Your task to perform on an android device: Open display settings Image 0: 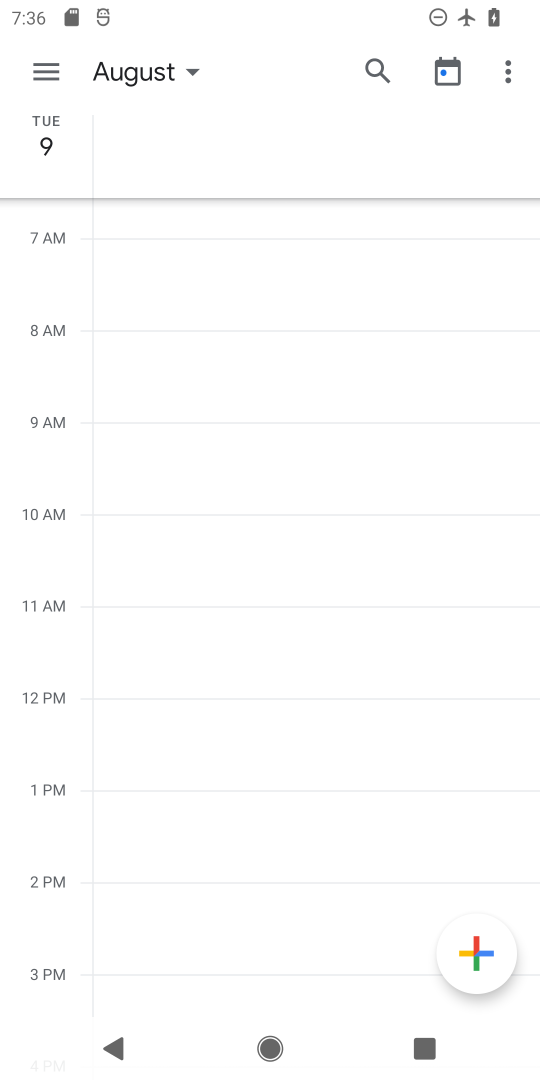
Step 0: press home button
Your task to perform on an android device: Open display settings Image 1: 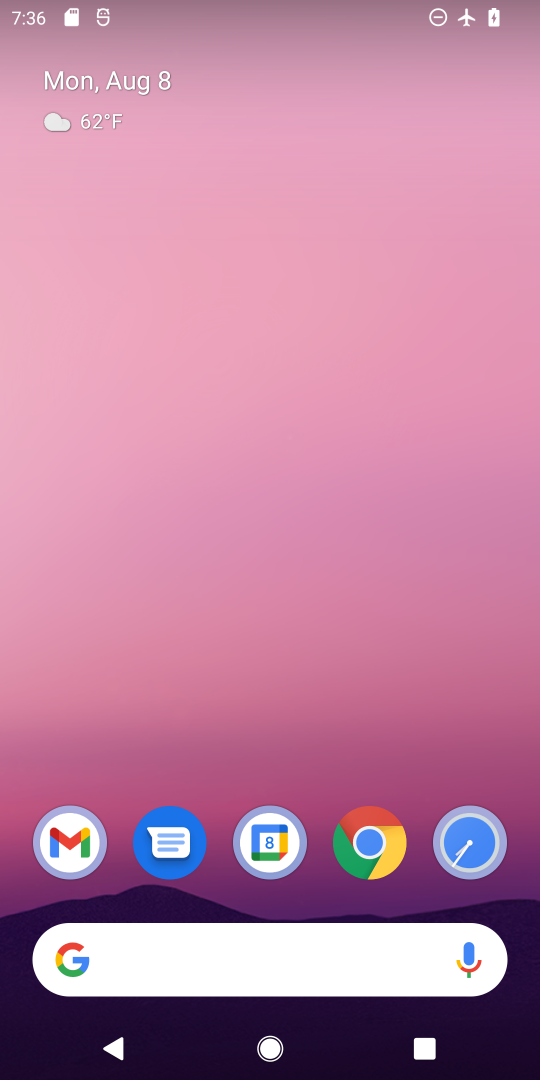
Step 1: drag from (327, 908) to (233, 99)
Your task to perform on an android device: Open display settings Image 2: 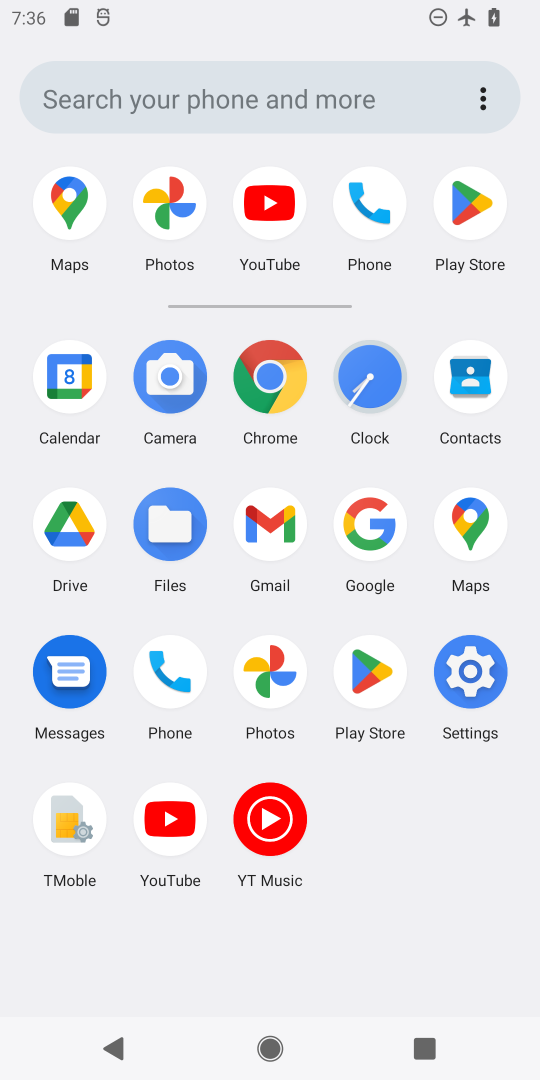
Step 2: click (439, 700)
Your task to perform on an android device: Open display settings Image 3: 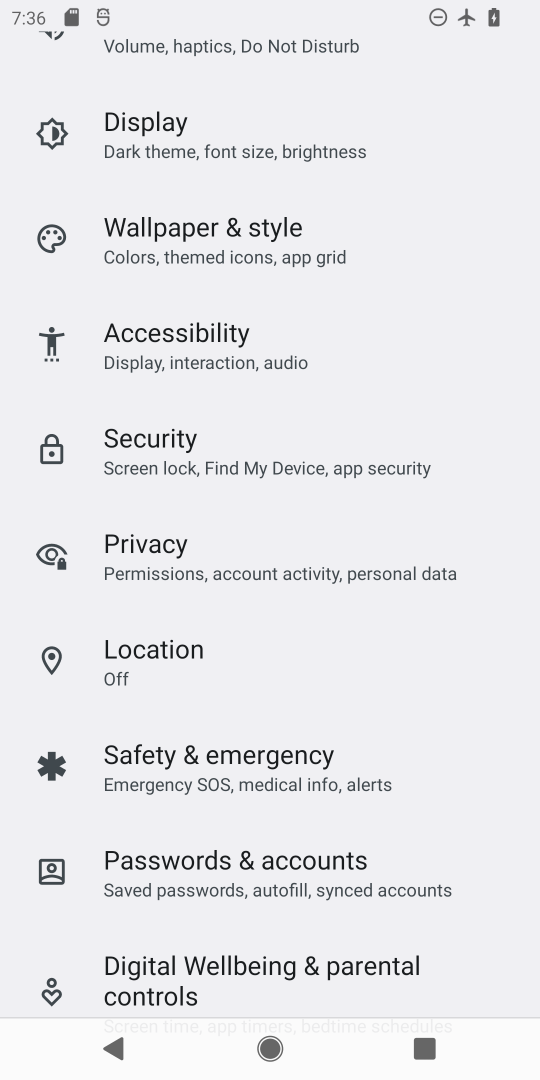
Step 3: click (115, 157)
Your task to perform on an android device: Open display settings Image 4: 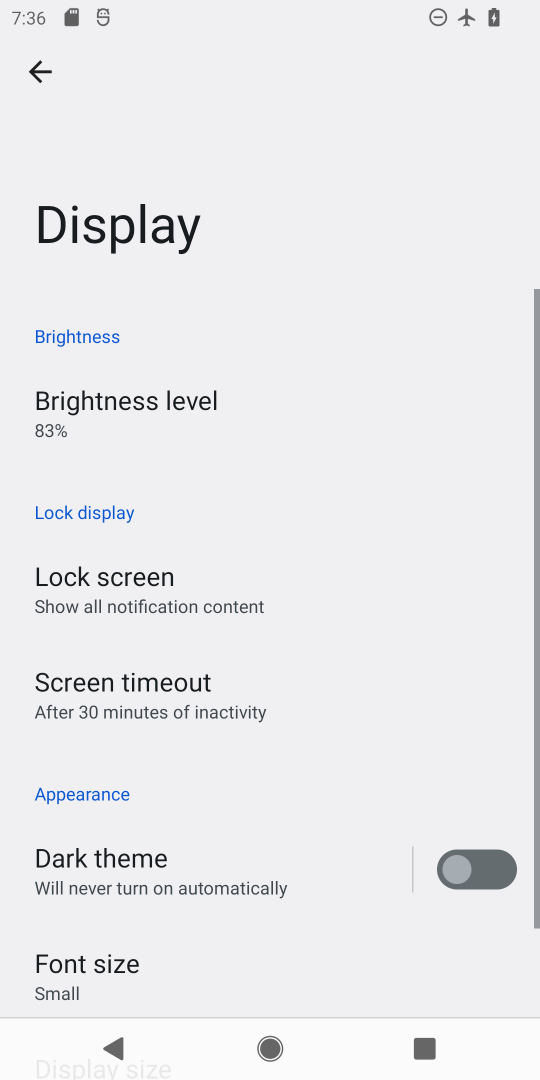
Step 4: task complete